Your task to perform on an android device: change the clock display to digital Image 0: 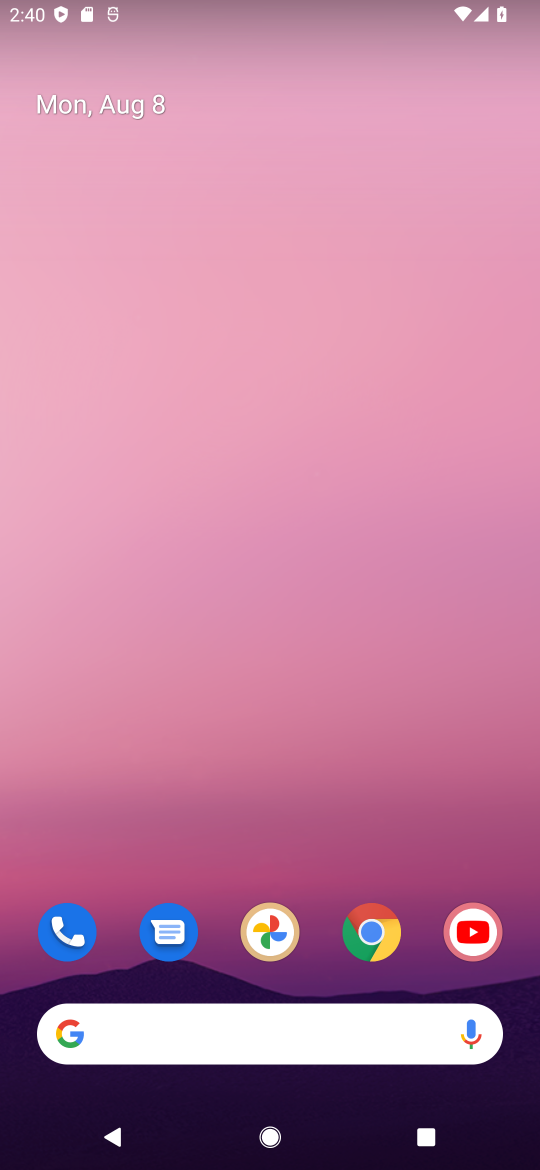
Step 0: drag from (342, 713) to (392, 148)
Your task to perform on an android device: change the clock display to digital Image 1: 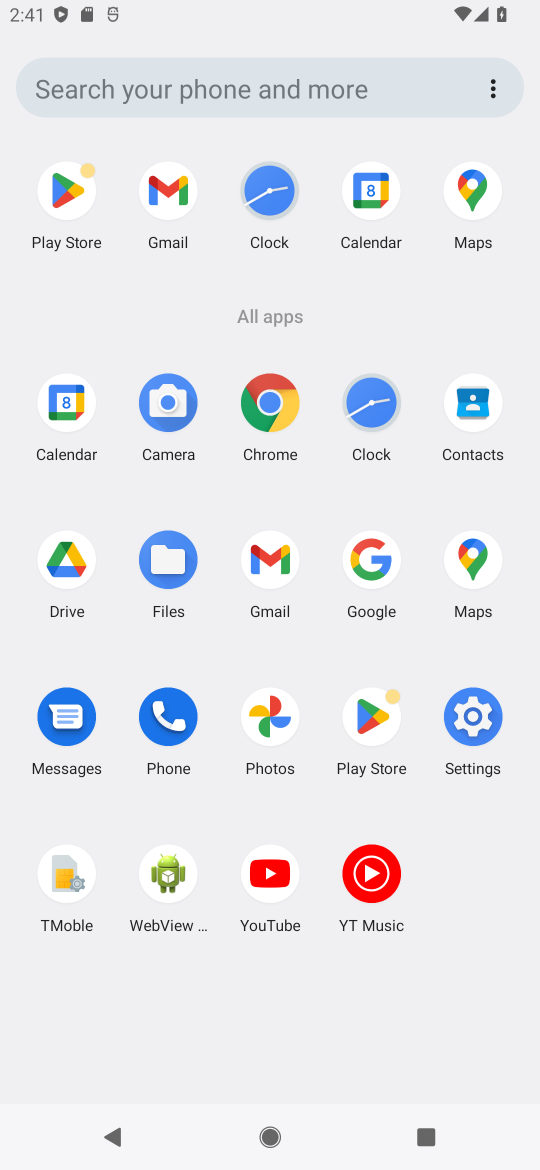
Step 1: click (387, 404)
Your task to perform on an android device: change the clock display to digital Image 2: 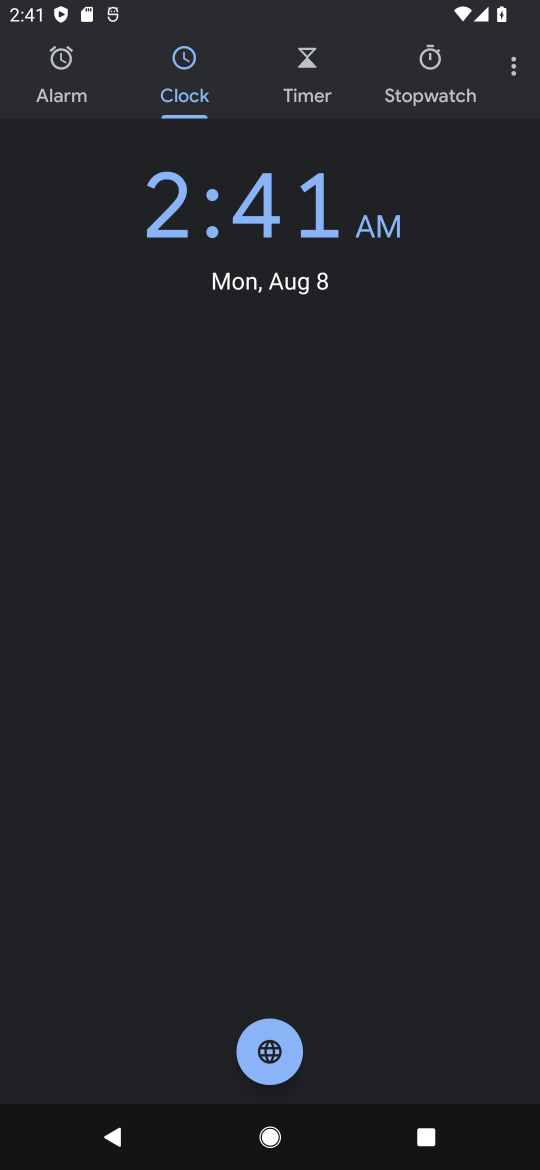
Step 2: click (522, 55)
Your task to perform on an android device: change the clock display to digital Image 3: 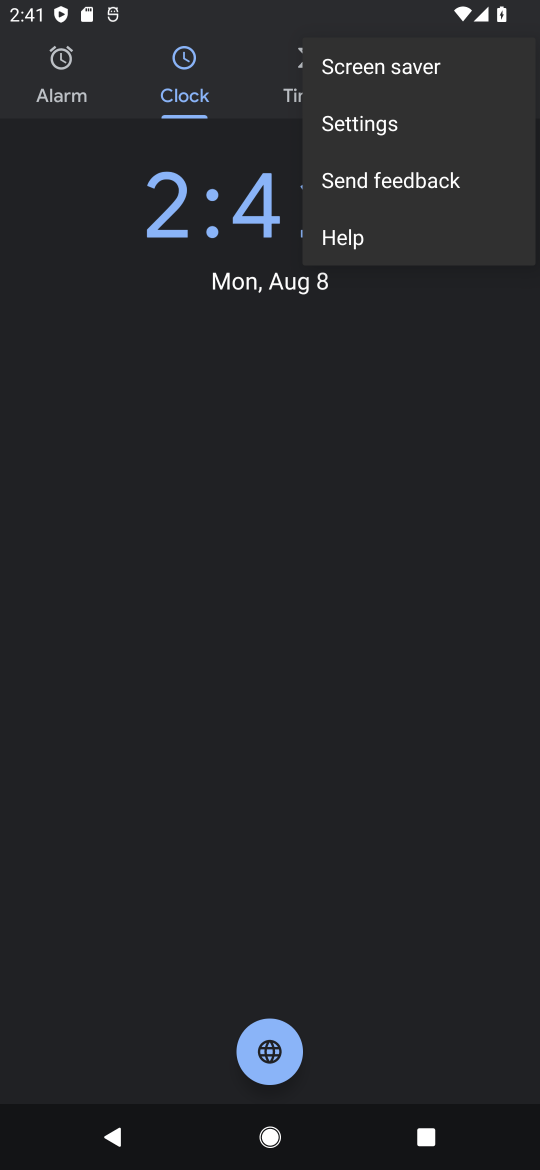
Step 3: click (385, 130)
Your task to perform on an android device: change the clock display to digital Image 4: 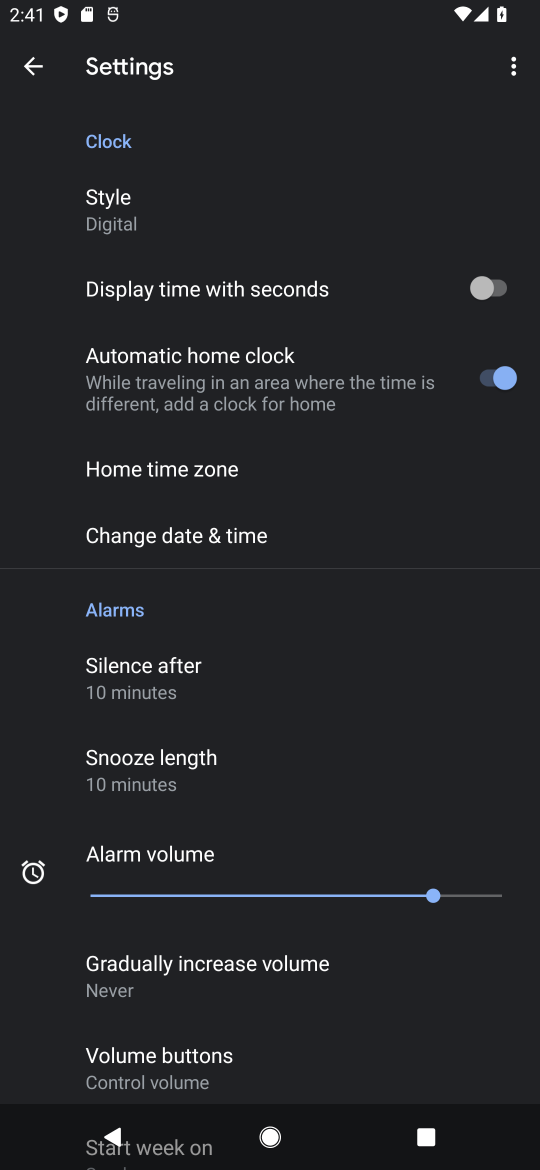
Step 4: task complete